Your task to perform on an android device: turn on improve location accuracy Image 0: 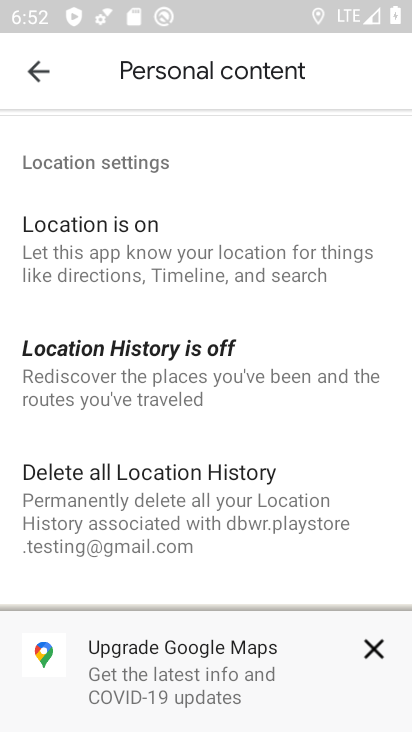
Step 0: press home button
Your task to perform on an android device: turn on improve location accuracy Image 1: 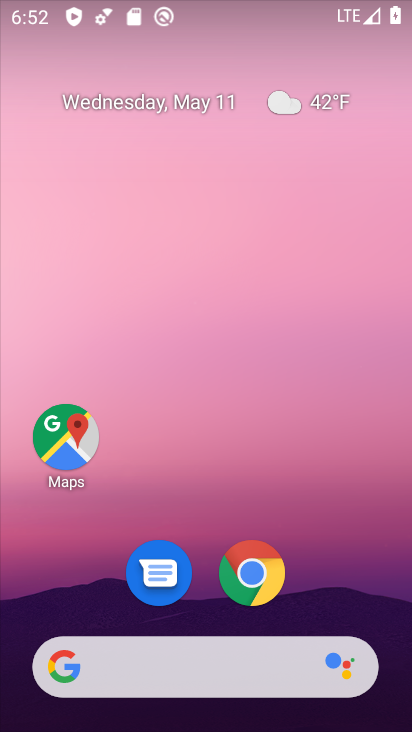
Step 1: drag from (314, 598) to (274, 243)
Your task to perform on an android device: turn on improve location accuracy Image 2: 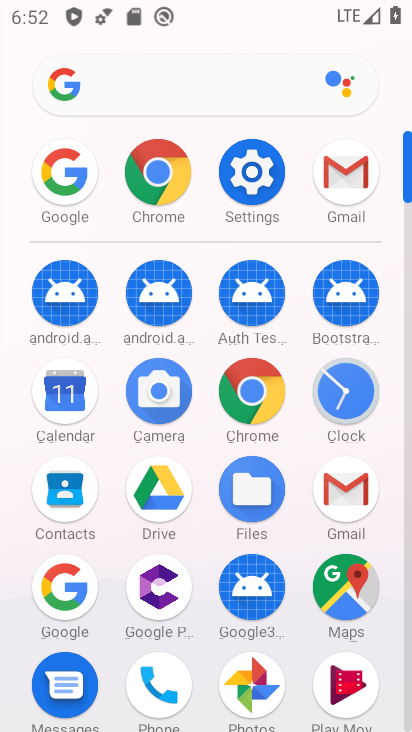
Step 2: click (265, 205)
Your task to perform on an android device: turn on improve location accuracy Image 3: 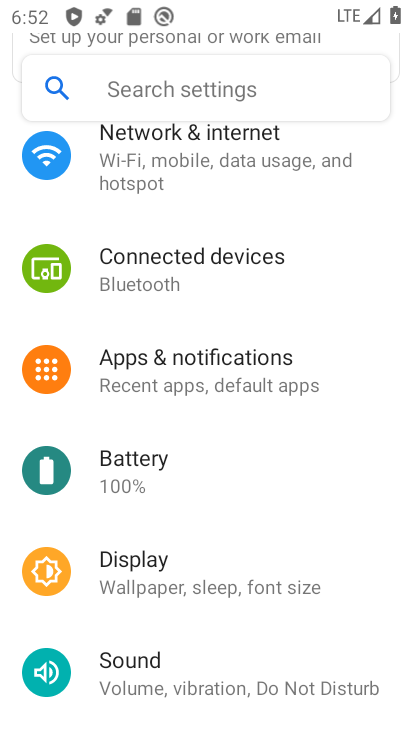
Step 3: drag from (210, 604) to (233, 259)
Your task to perform on an android device: turn on improve location accuracy Image 4: 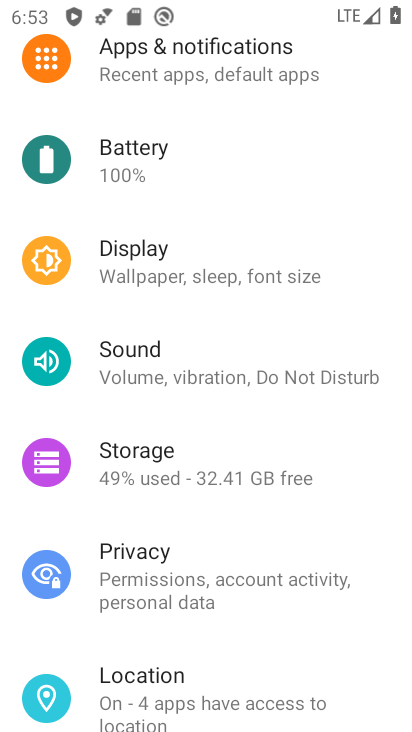
Step 4: click (163, 683)
Your task to perform on an android device: turn on improve location accuracy Image 5: 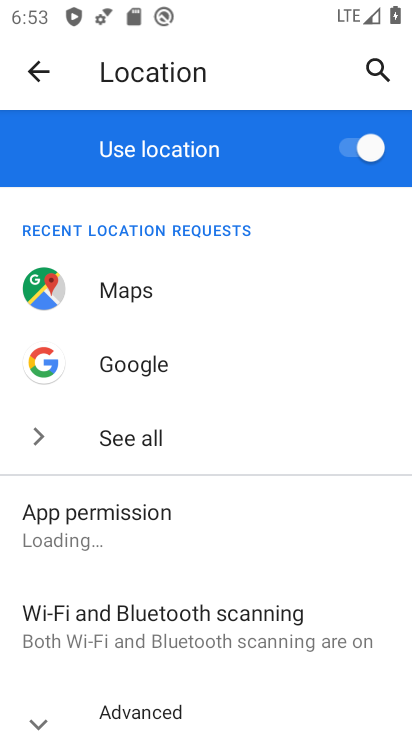
Step 5: drag from (207, 682) to (234, 392)
Your task to perform on an android device: turn on improve location accuracy Image 6: 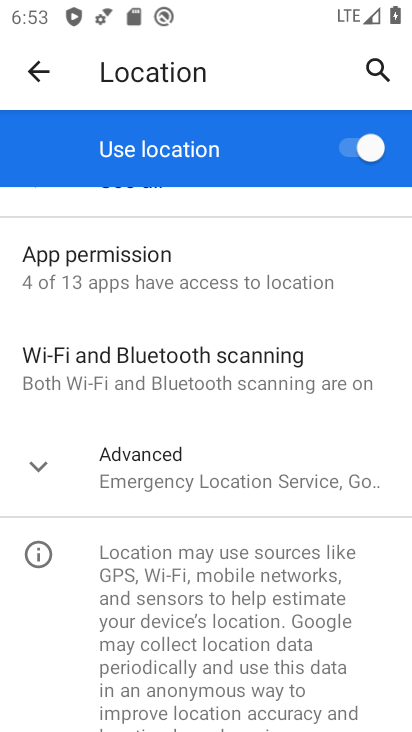
Step 6: click (134, 485)
Your task to perform on an android device: turn on improve location accuracy Image 7: 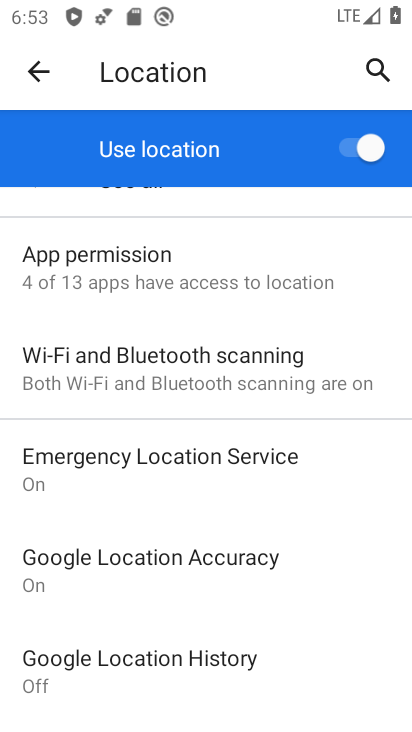
Step 7: task complete